Your task to perform on an android device: open chrome privacy settings Image 0: 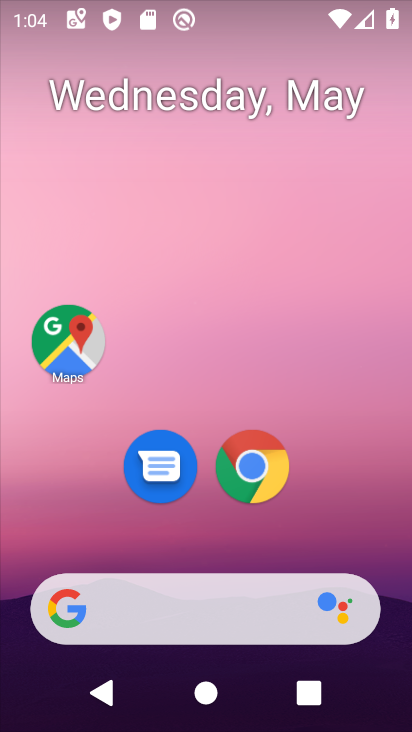
Step 0: click (248, 465)
Your task to perform on an android device: open chrome privacy settings Image 1: 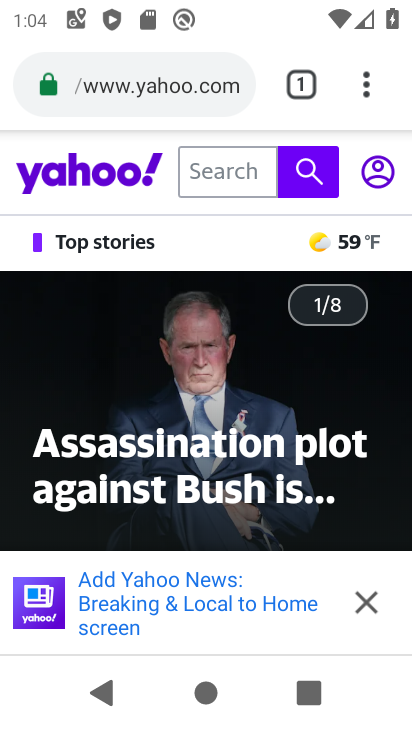
Step 1: click (356, 91)
Your task to perform on an android device: open chrome privacy settings Image 2: 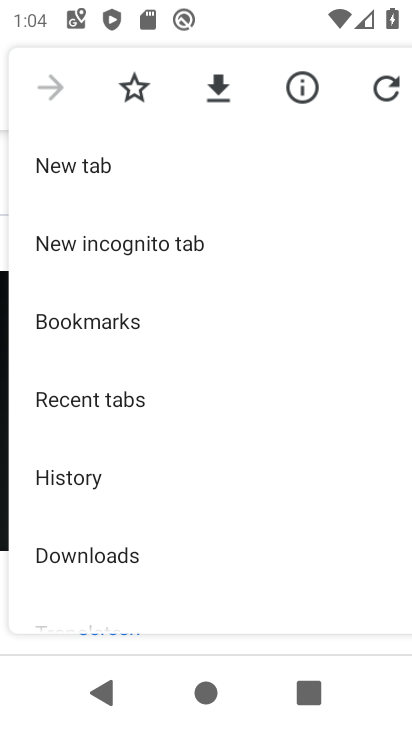
Step 2: drag from (156, 555) to (181, 160)
Your task to perform on an android device: open chrome privacy settings Image 3: 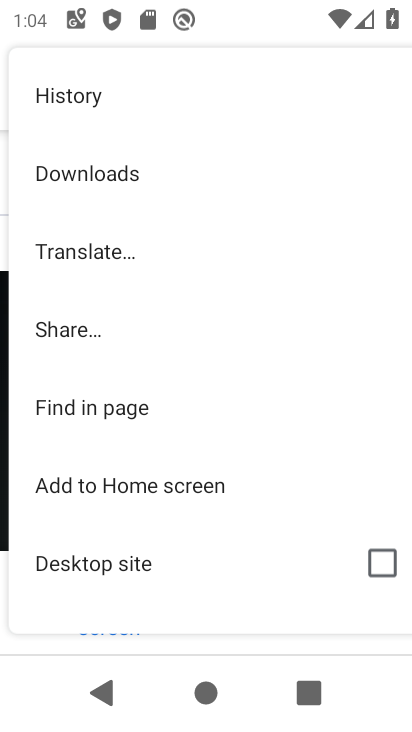
Step 3: drag from (110, 436) to (139, 192)
Your task to perform on an android device: open chrome privacy settings Image 4: 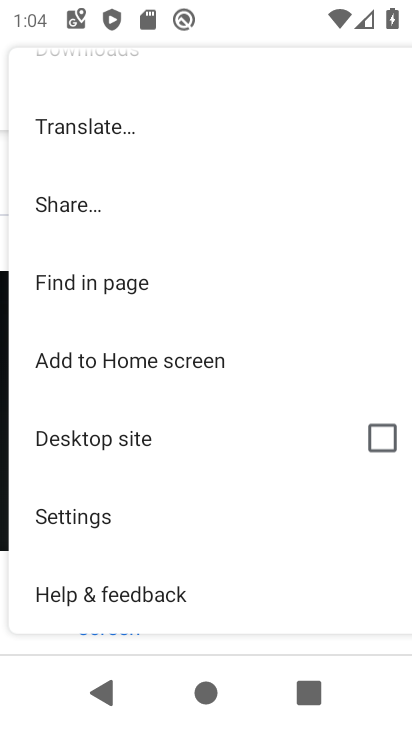
Step 4: click (106, 520)
Your task to perform on an android device: open chrome privacy settings Image 5: 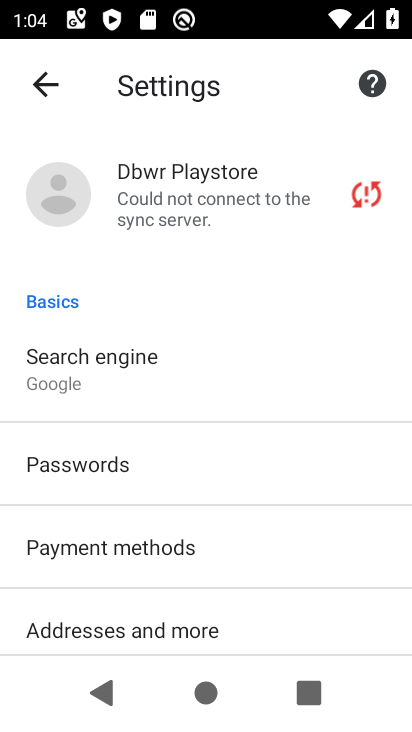
Step 5: drag from (152, 558) to (220, 161)
Your task to perform on an android device: open chrome privacy settings Image 6: 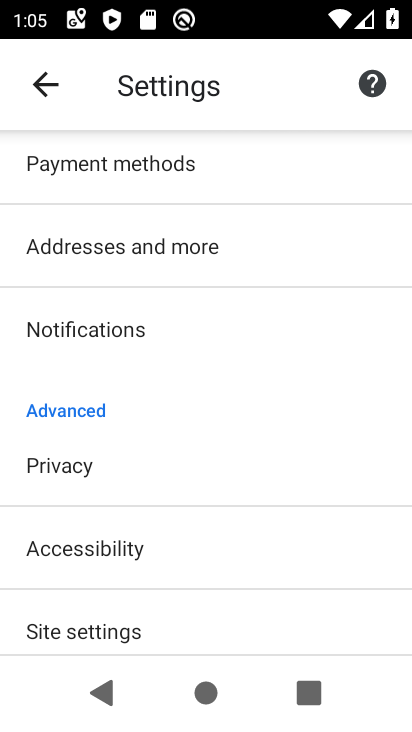
Step 6: click (94, 477)
Your task to perform on an android device: open chrome privacy settings Image 7: 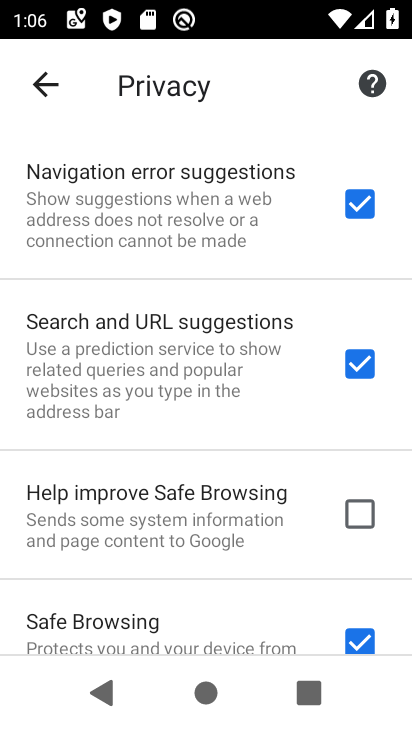
Step 7: task complete